Your task to perform on an android device: install app "Google Maps" Image 0: 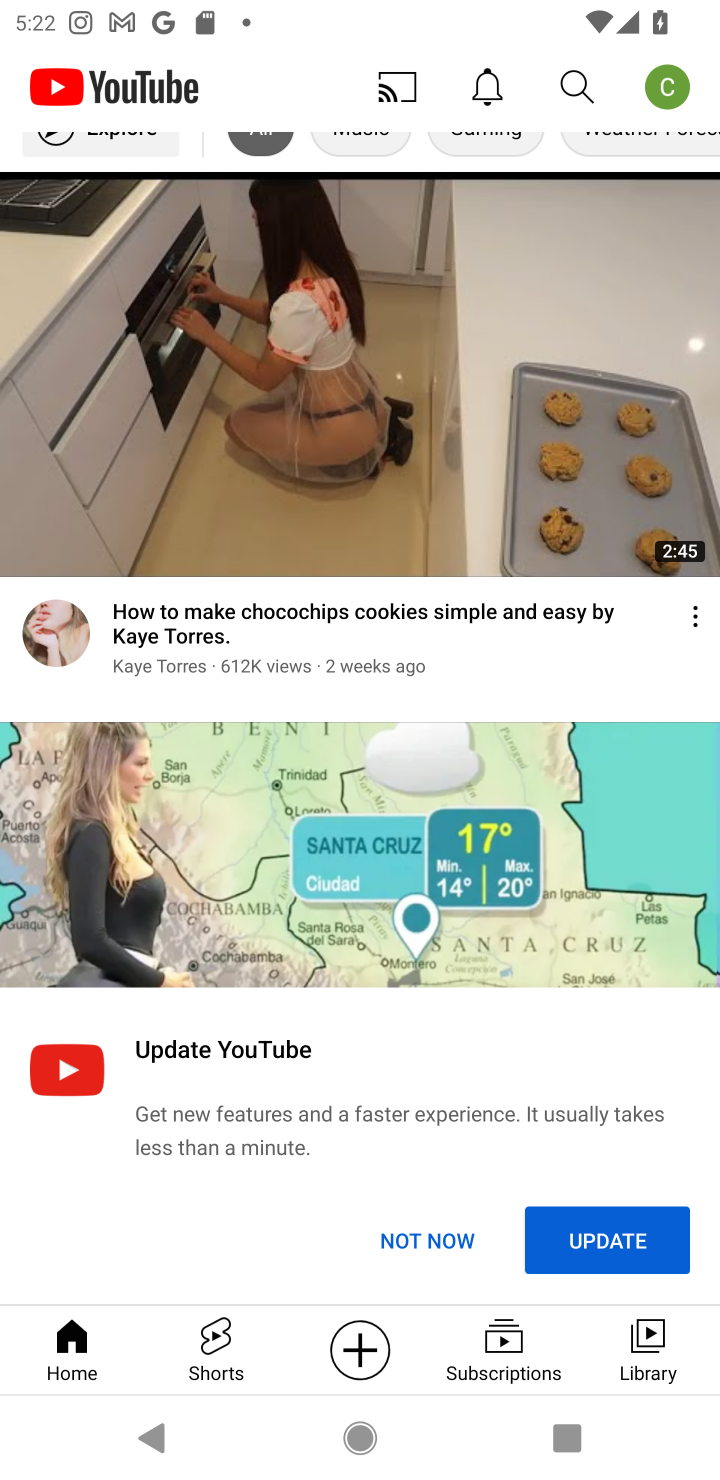
Step 0: press home button
Your task to perform on an android device: install app "Google Maps" Image 1: 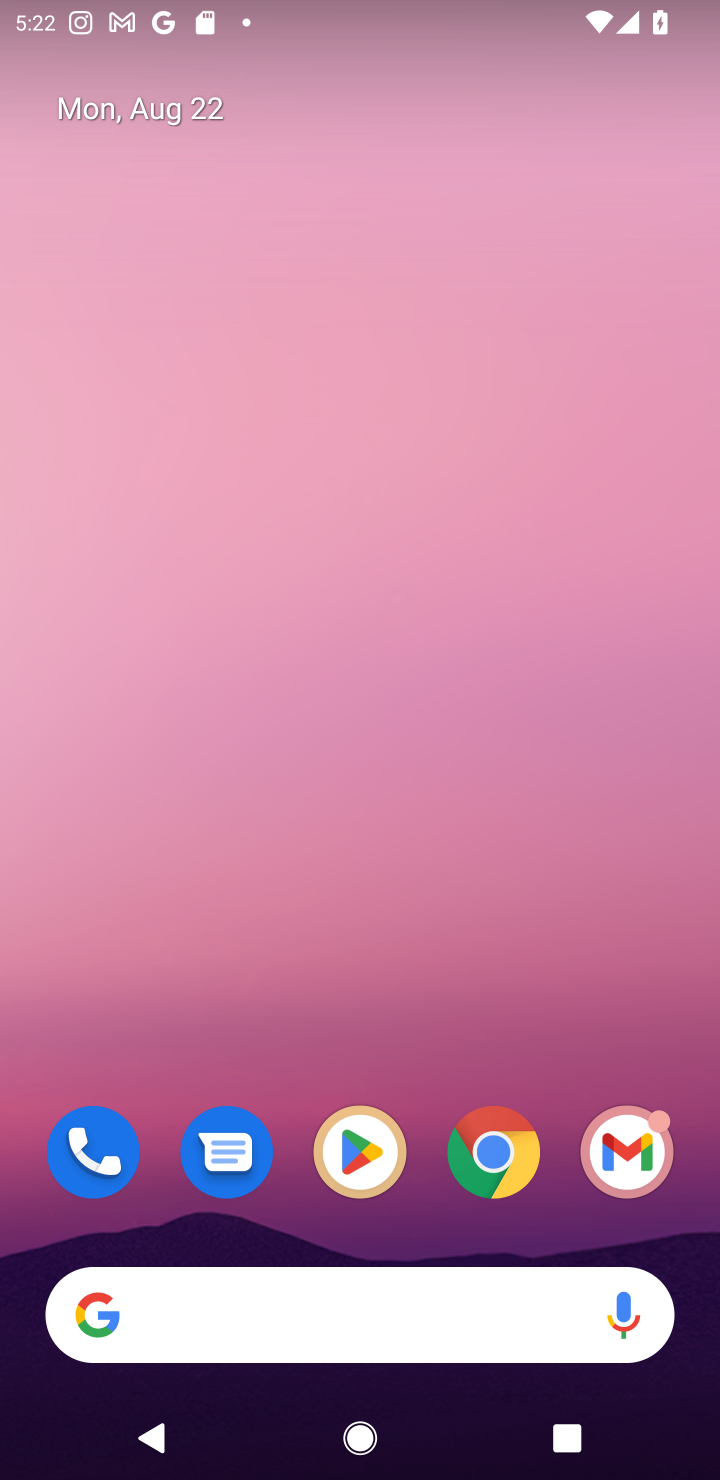
Step 1: click (390, 1158)
Your task to perform on an android device: install app "Google Maps" Image 2: 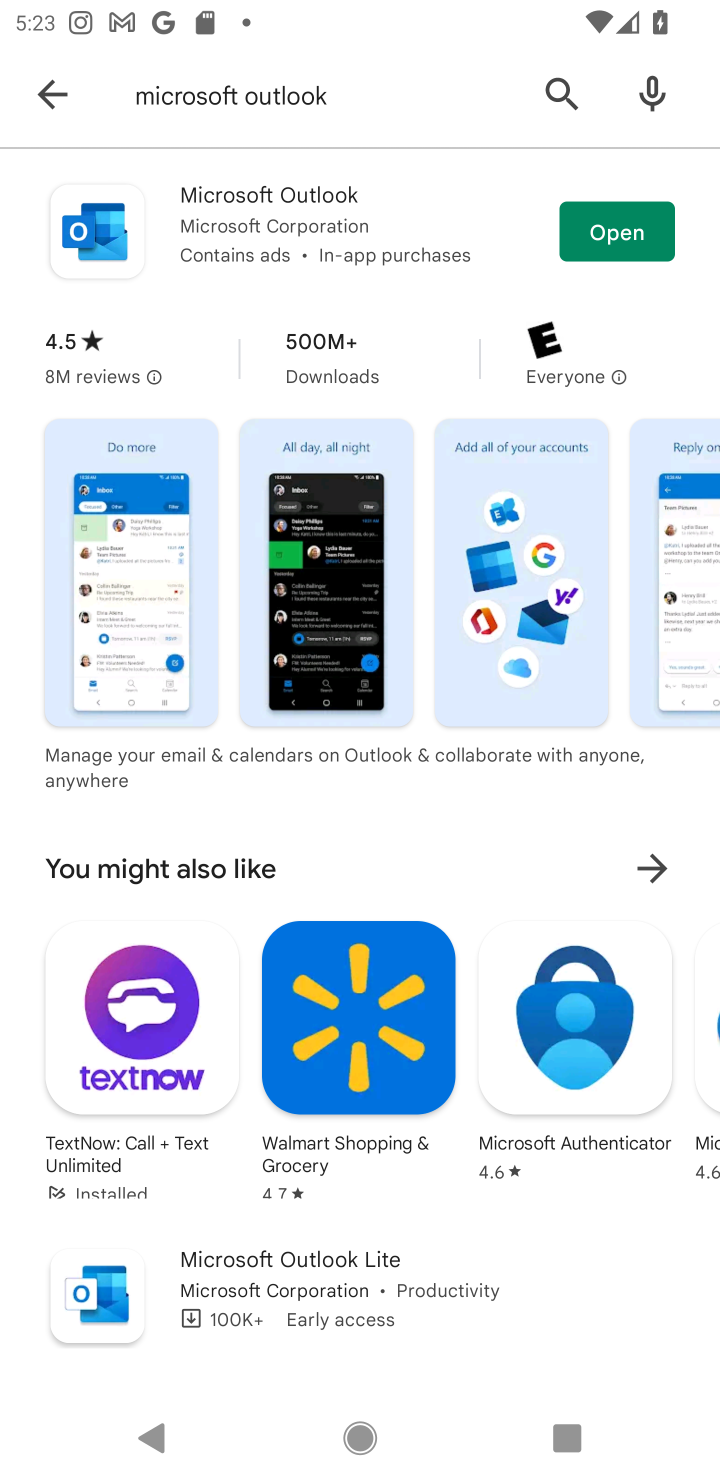
Step 2: click (74, 96)
Your task to perform on an android device: install app "Google Maps" Image 3: 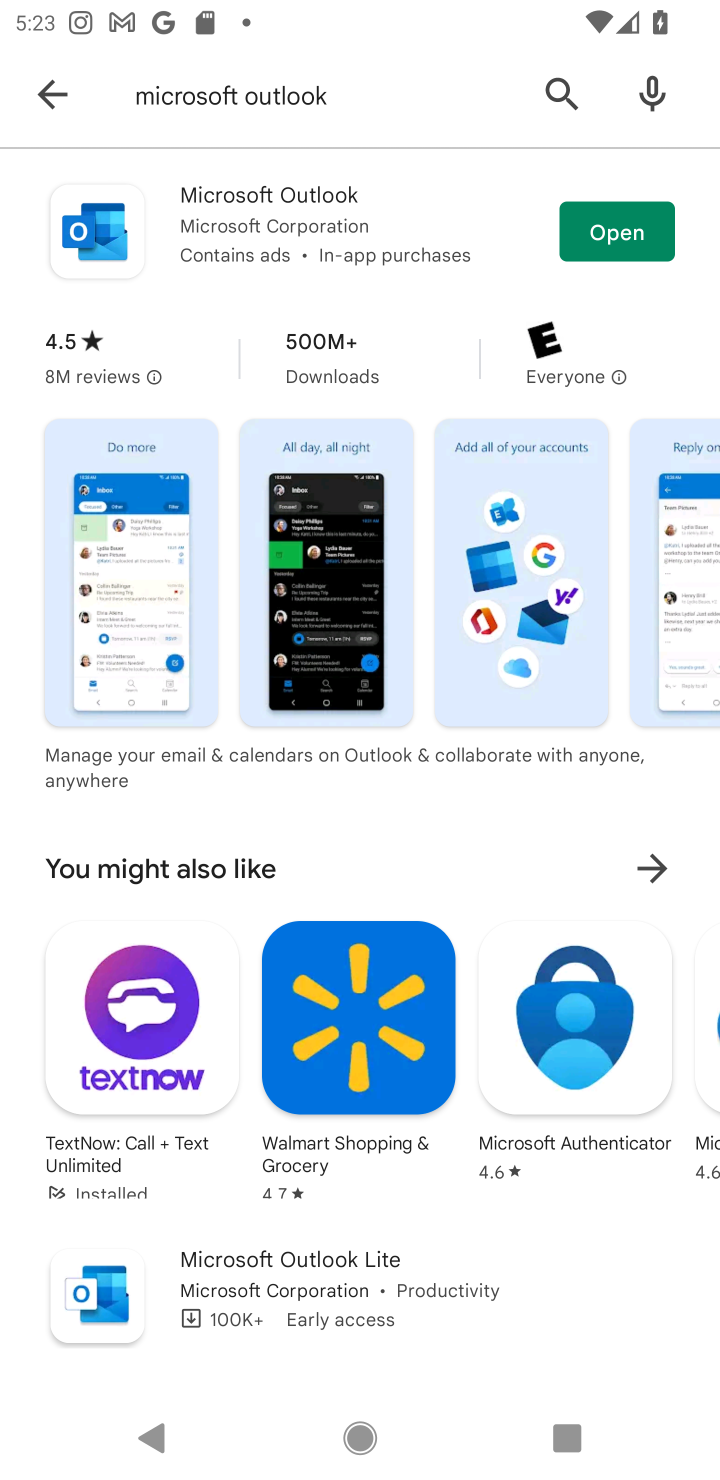
Step 3: click (546, 106)
Your task to perform on an android device: install app "Google Maps" Image 4: 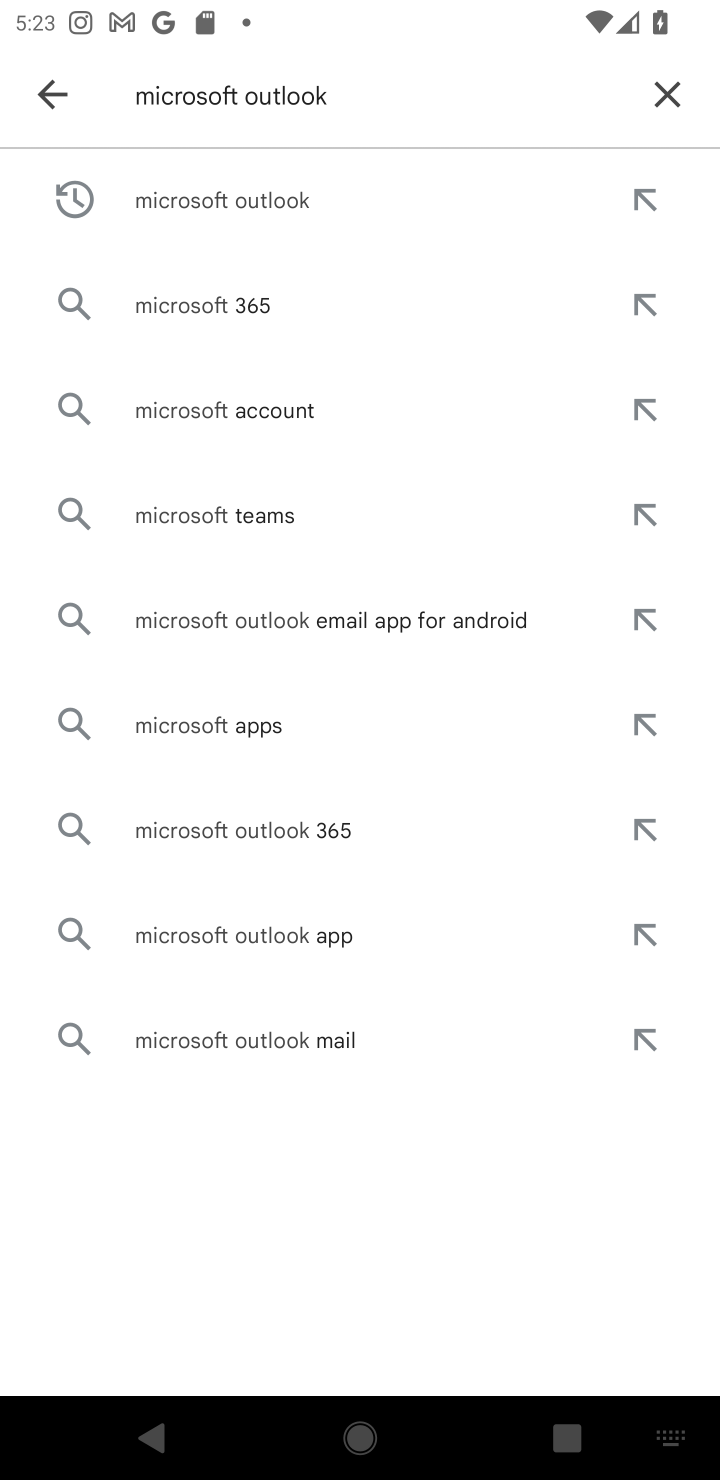
Step 4: click (661, 96)
Your task to perform on an android device: install app "Google Maps" Image 5: 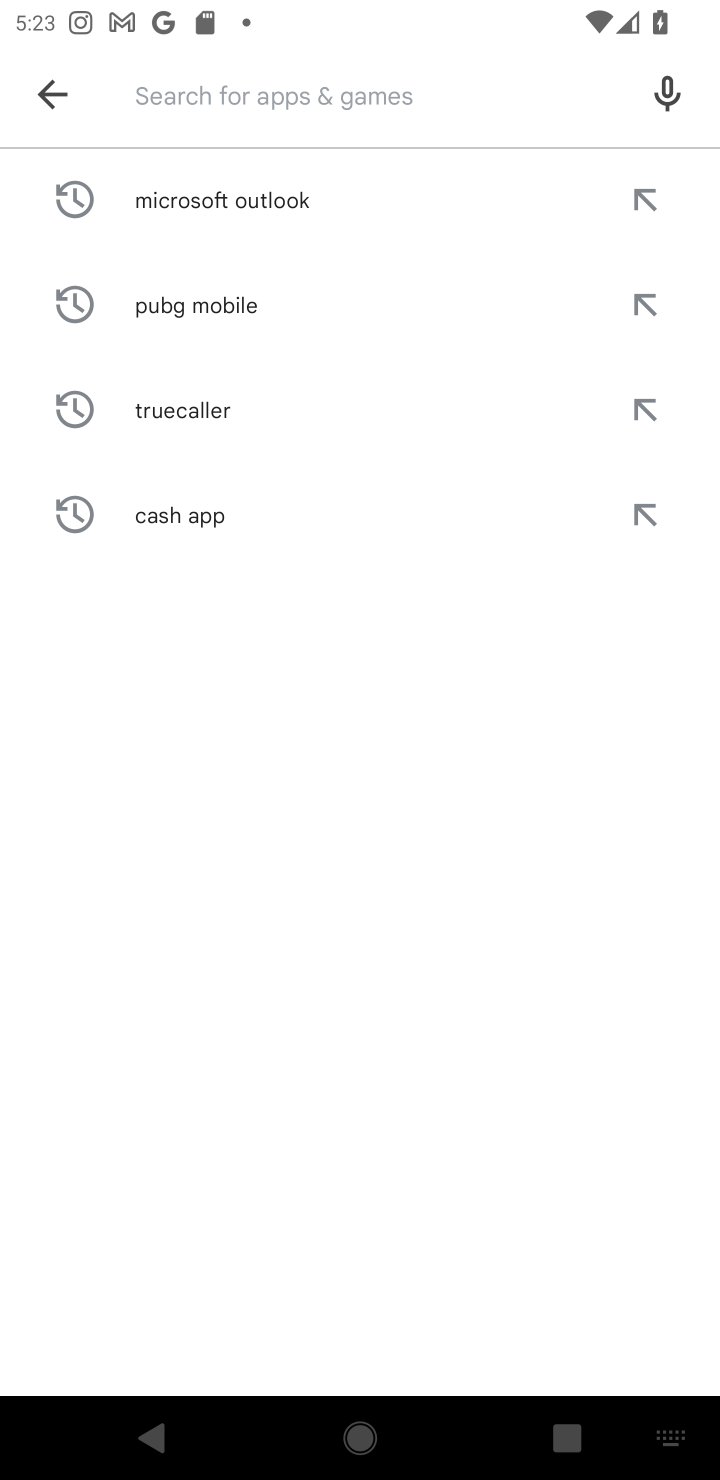
Step 5: type "Google Maps"
Your task to perform on an android device: install app "Google Maps" Image 6: 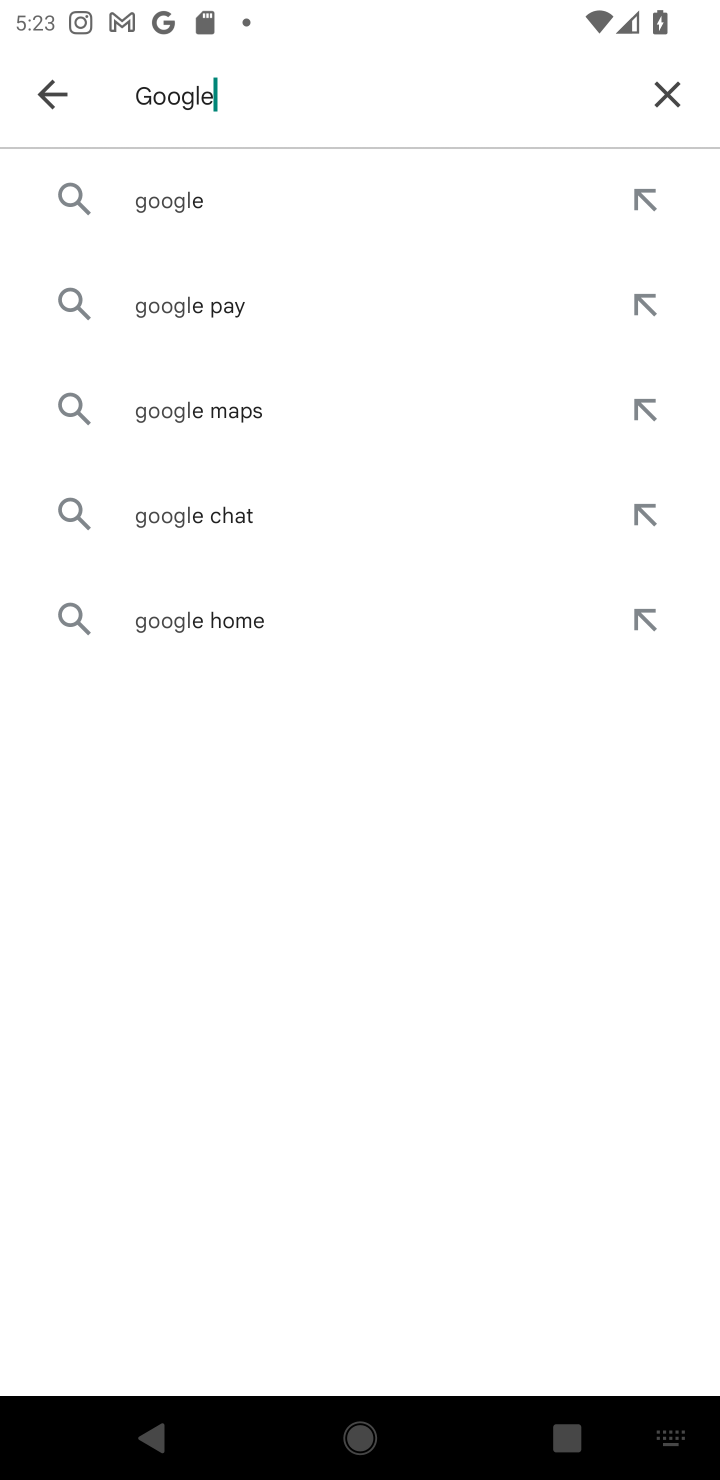
Step 6: type ""
Your task to perform on an android device: install app "Google Maps" Image 7: 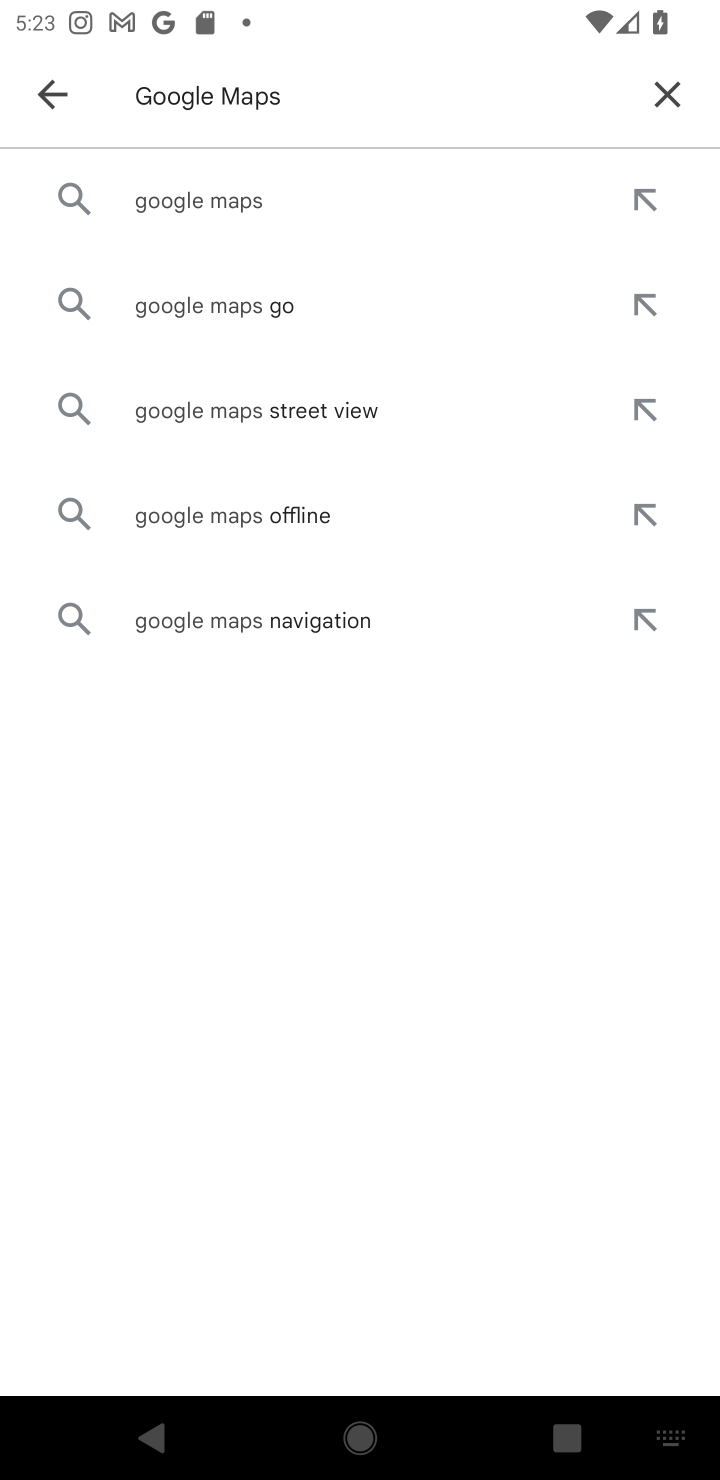
Step 7: click (260, 195)
Your task to perform on an android device: install app "Google Maps" Image 8: 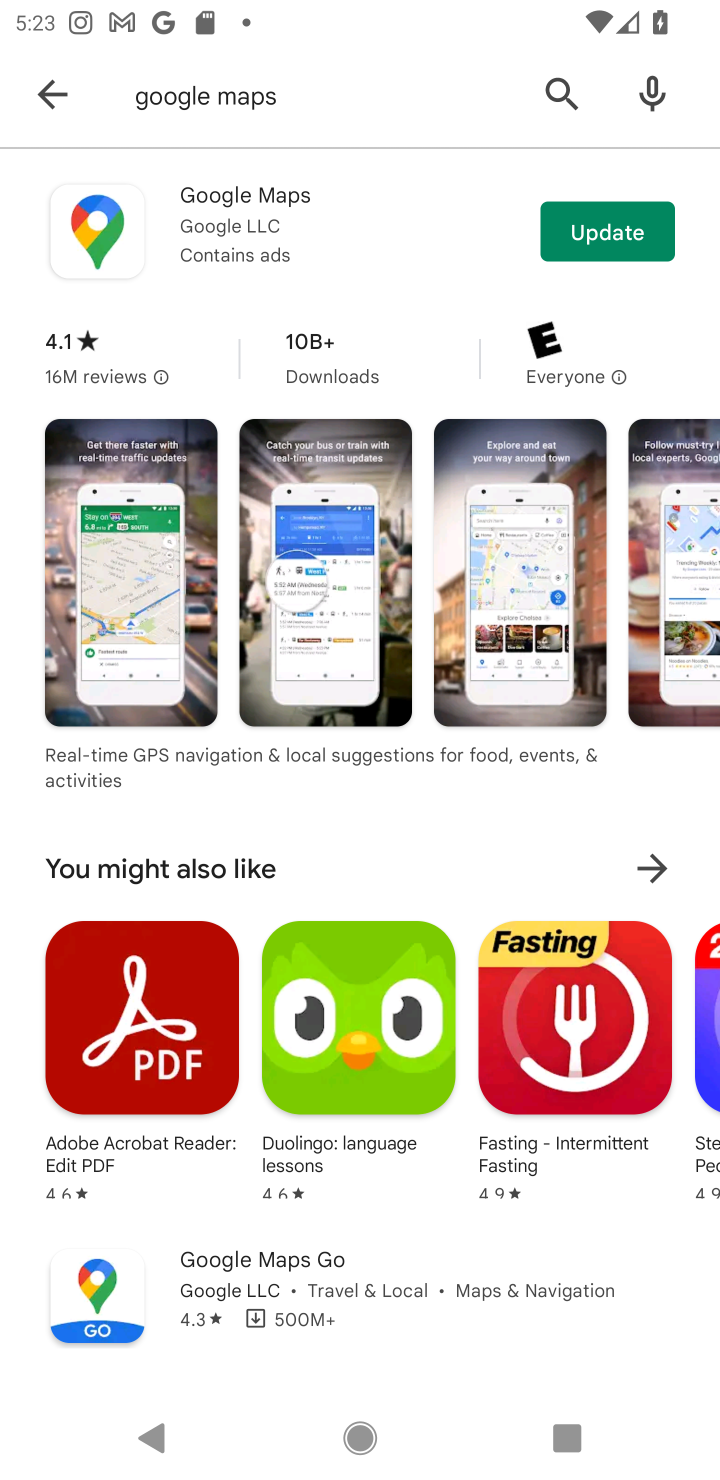
Step 8: click (566, 229)
Your task to perform on an android device: install app "Google Maps" Image 9: 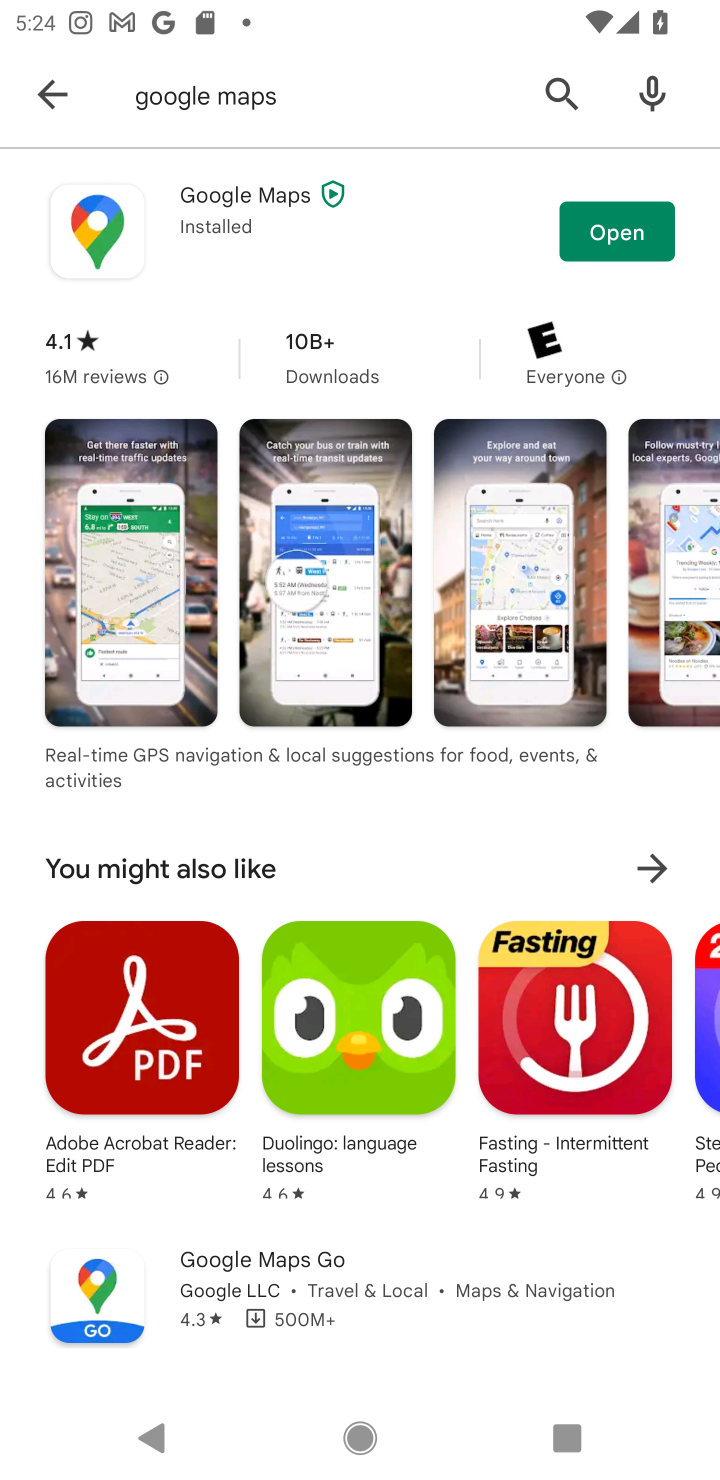
Step 9: task complete